Your task to perform on an android device: stop showing notifications on the lock screen Image 0: 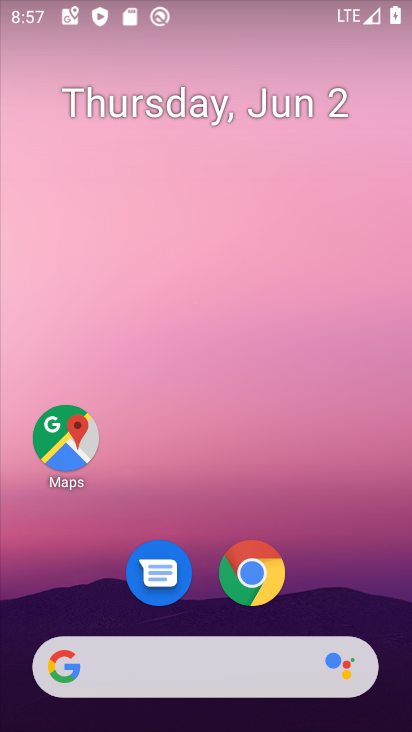
Step 0: press home button
Your task to perform on an android device: stop showing notifications on the lock screen Image 1: 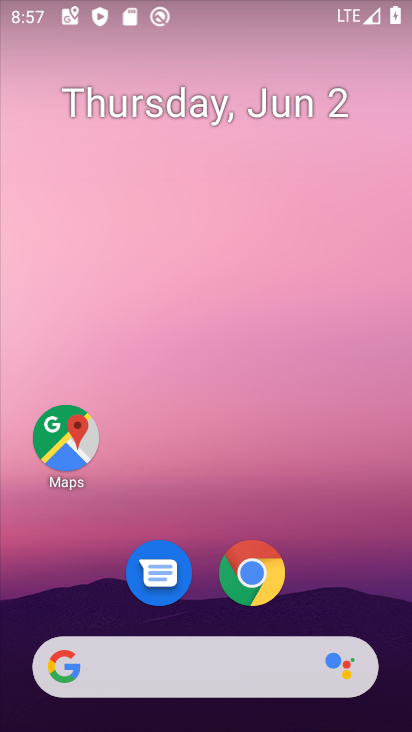
Step 1: drag from (350, 590) to (341, 87)
Your task to perform on an android device: stop showing notifications on the lock screen Image 2: 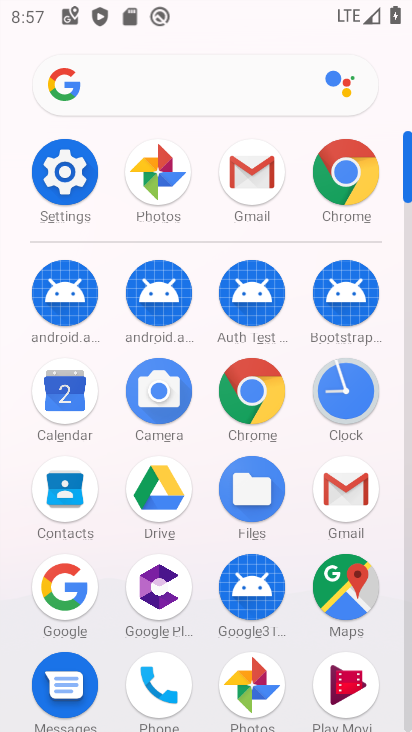
Step 2: click (52, 179)
Your task to perform on an android device: stop showing notifications on the lock screen Image 3: 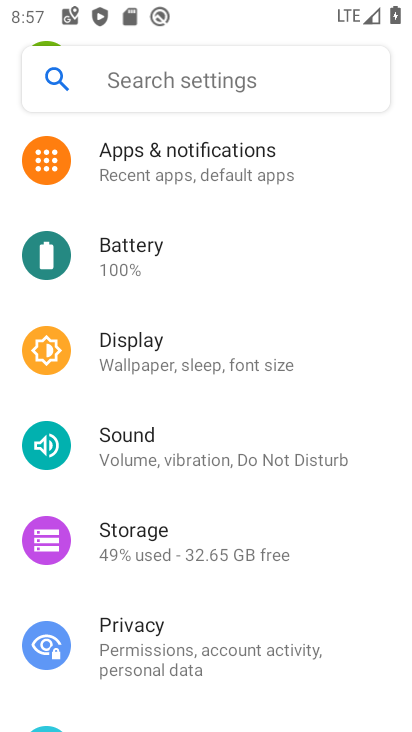
Step 3: click (266, 177)
Your task to perform on an android device: stop showing notifications on the lock screen Image 4: 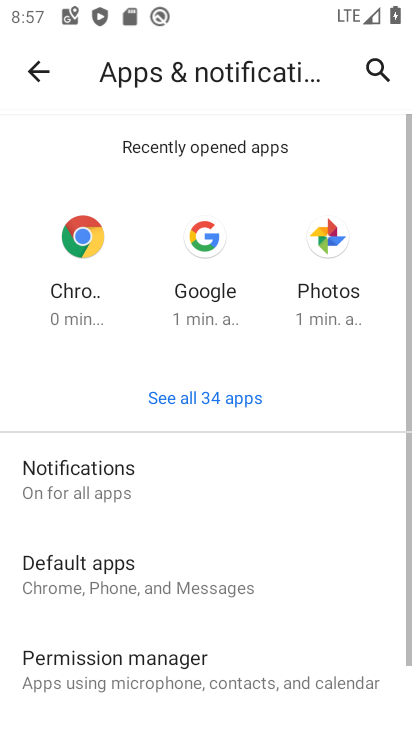
Step 4: click (97, 490)
Your task to perform on an android device: stop showing notifications on the lock screen Image 5: 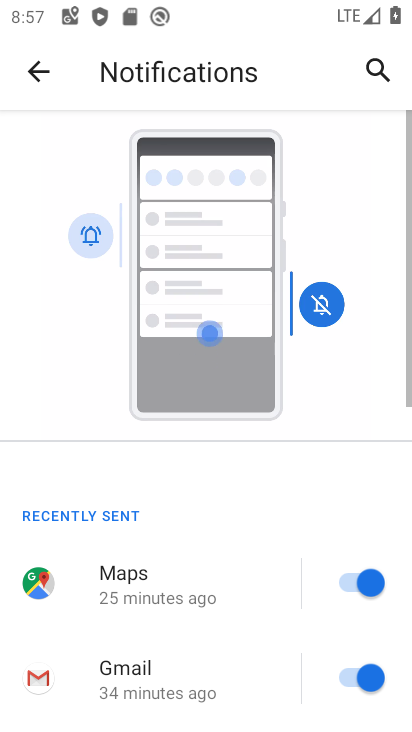
Step 5: drag from (191, 684) to (250, 227)
Your task to perform on an android device: stop showing notifications on the lock screen Image 6: 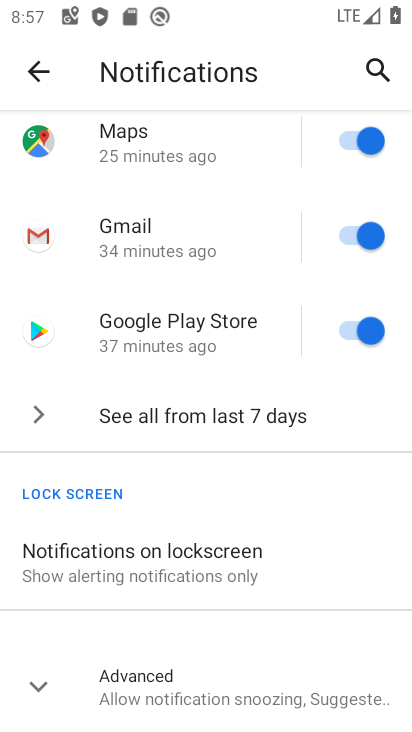
Step 6: click (203, 560)
Your task to perform on an android device: stop showing notifications on the lock screen Image 7: 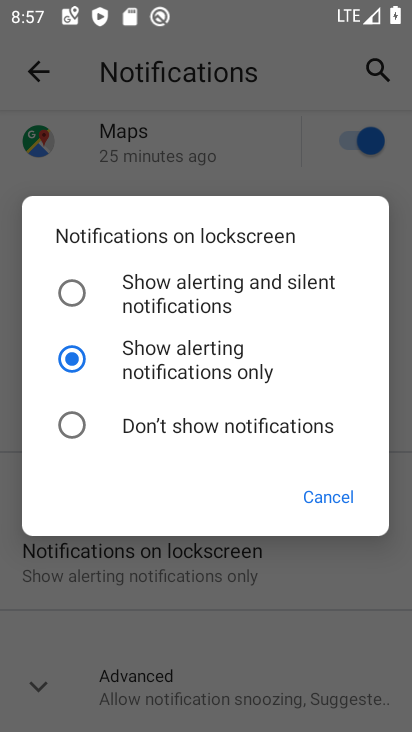
Step 7: click (234, 412)
Your task to perform on an android device: stop showing notifications on the lock screen Image 8: 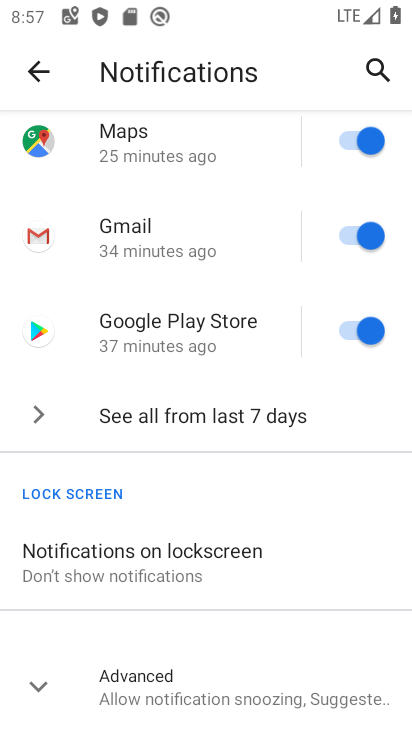
Step 8: task complete